Your task to perform on an android device: turn on airplane mode Image 0: 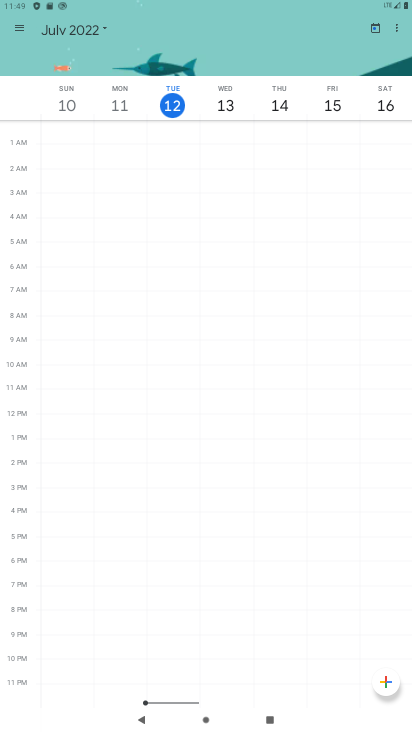
Step 0: press home button
Your task to perform on an android device: turn on airplane mode Image 1: 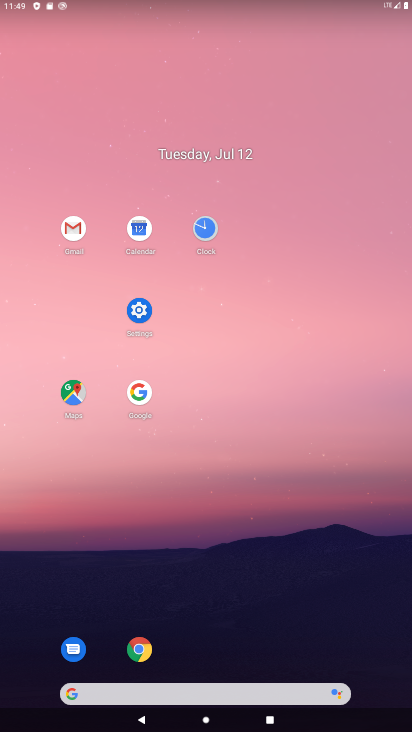
Step 1: click (132, 314)
Your task to perform on an android device: turn on airplane mode Image 2: 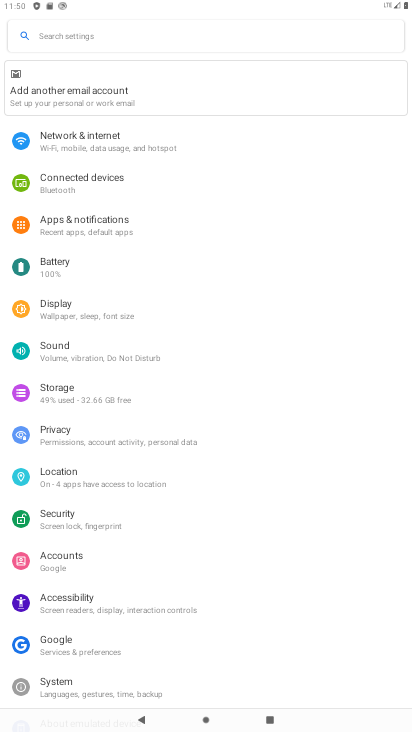
Step 2: click (132, 140)
Your task to perform on an android device: turn on airplane mode Image 3: 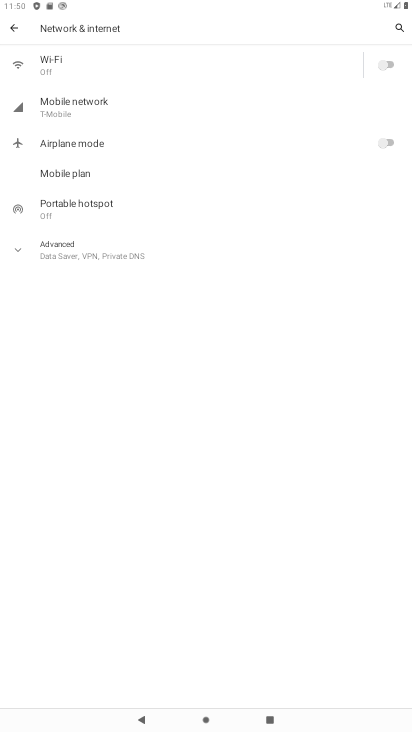
Step 3: click (381, 156)
Your task to perform on an android device: turn on airplane mode Image 4: 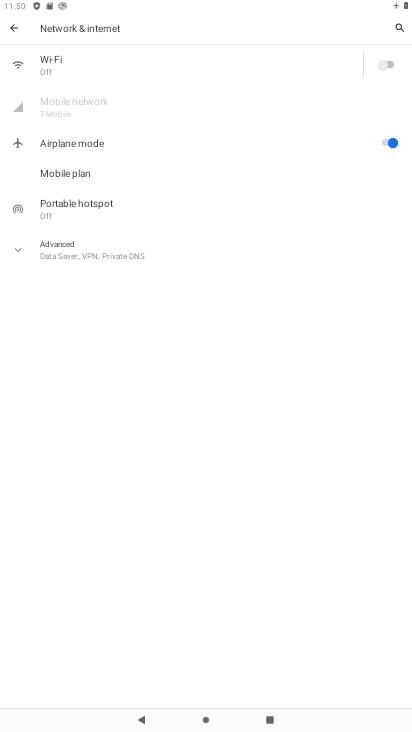
Step 4: task complete